Your task to perform on an android device: open chrome privacy settings Image 0: 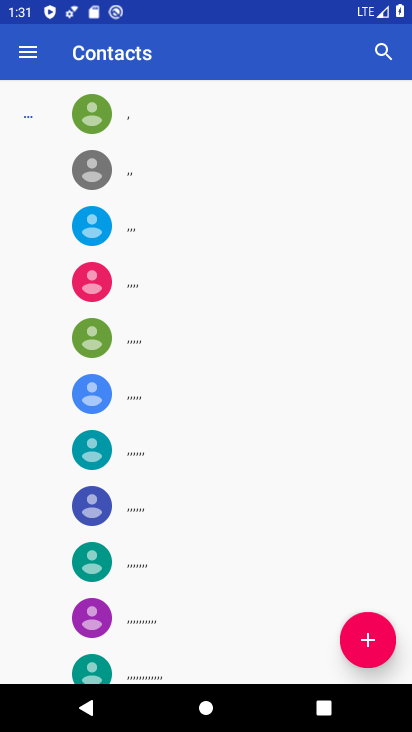
Step 0: press home button
Your task to perform on an android device: open chrome privacy settings Image 1: 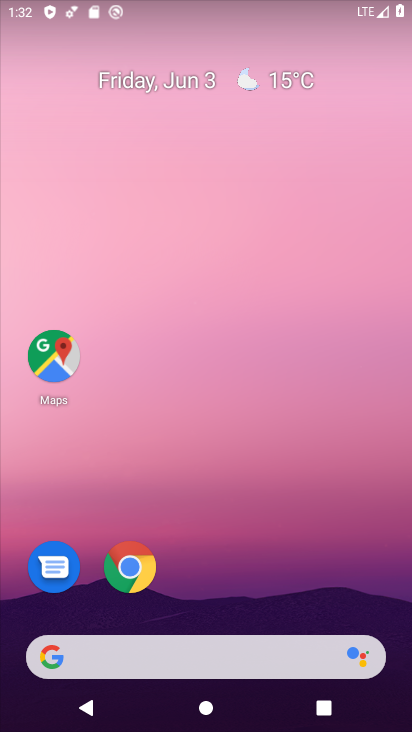
Step 1: drag from (230, 635) to (246, 127)
Your task to perform on an android device: open chrome privacy settings Image 2: 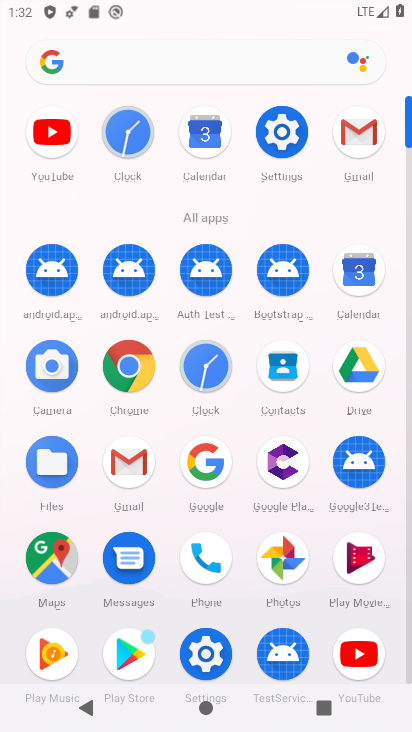
Step 2: click (132, 370)
Your task to perform on an android device: open chrome privacy settings Image 3: 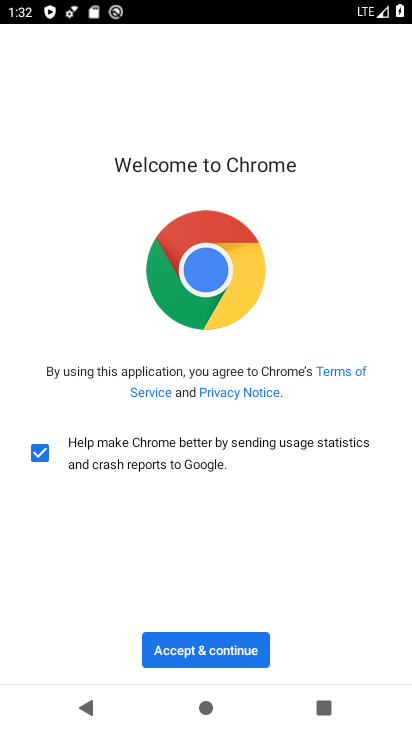
Step 3: click (257, 647)
Your task to perform on an android device: open chrome privacy settings Image 4: 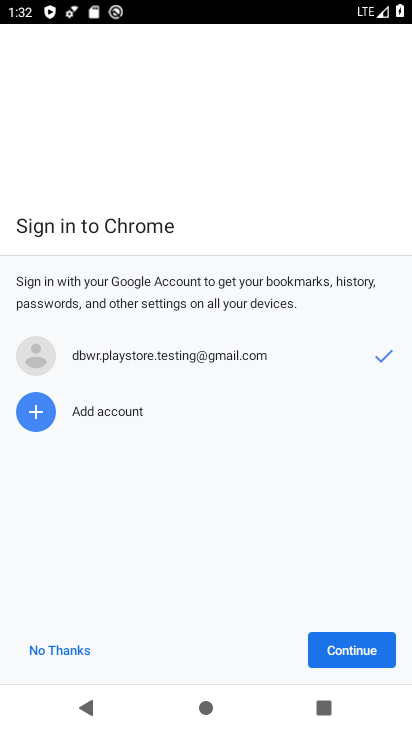
Step 4: click (352, 658)
Your task to perform on an android device: open chrome privacy settings Image 5: 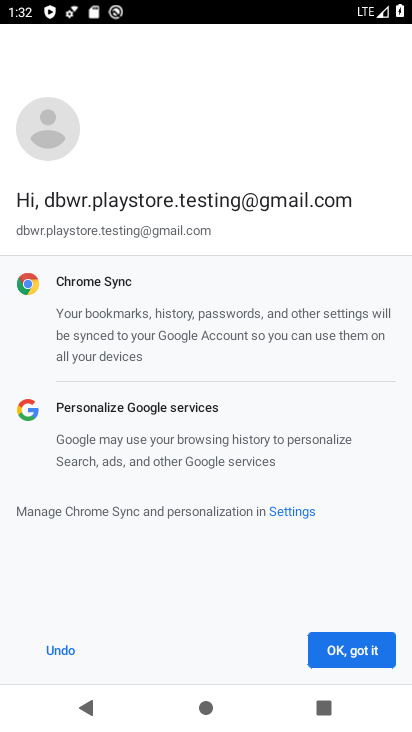
Step 5: click (352, 658)
Your task to perform on an android device: open chrome privacy settings Image 6: 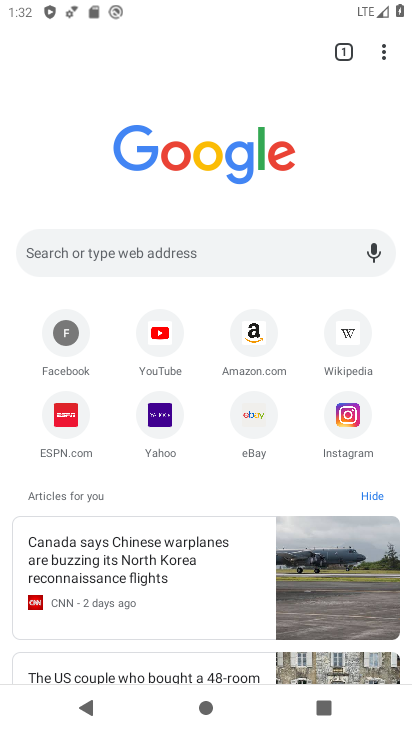
Step 6: click (382, 49)
Your task to perform on an android device: open chrome privacy settings Image 7: 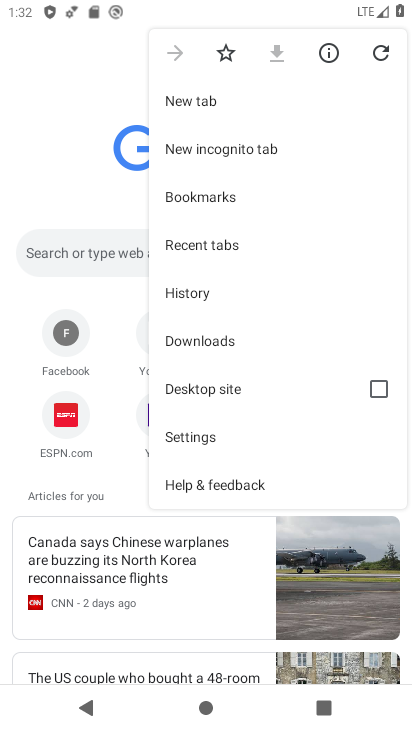
Step 7: click (203, 440)
Your task to perform on an android device: open chrome privacy settings Image 8: 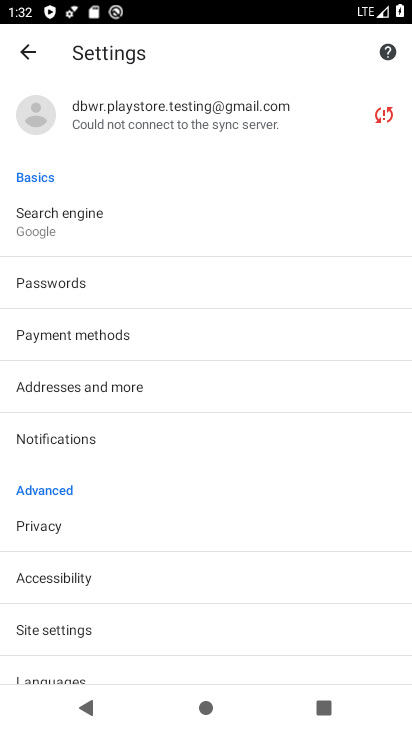
Step 8: click (53, 527)
Your task to perform on an android device: open chrome privacy settings Image 9: 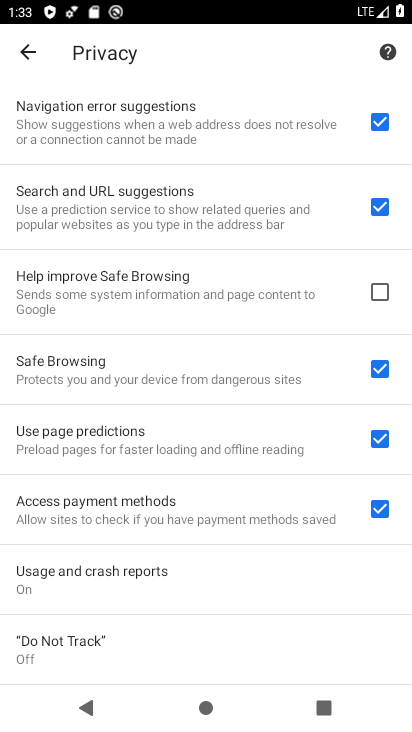
Step 9: task complete